Your task to perform on an android device: open device folders in google photos Image 0: 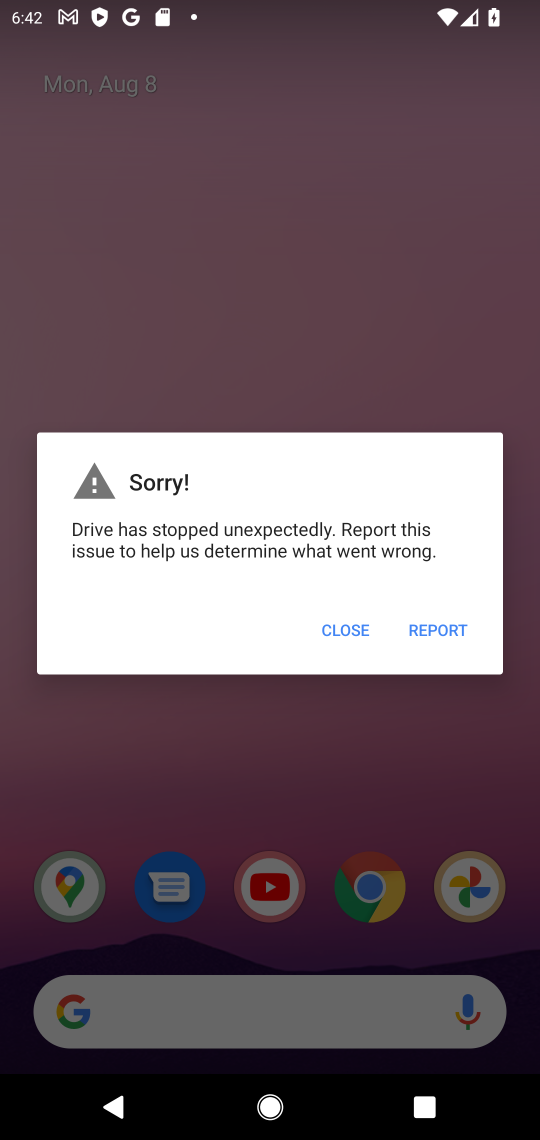
Step 0: press home button
Your task to perform on an android device: open device folders in google photos Image 1: 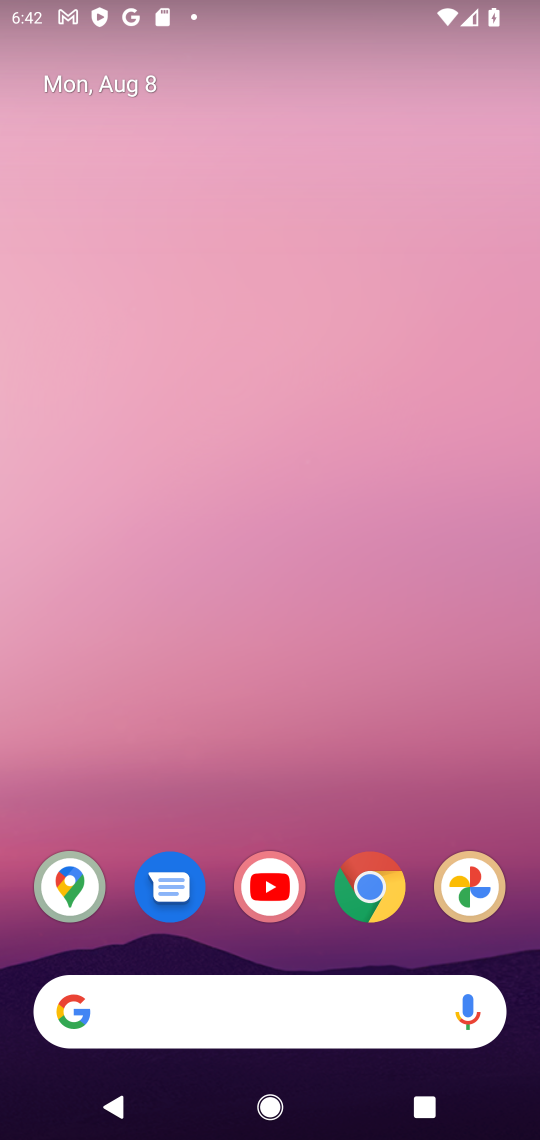
Step 1: drag from (420, 801) to (341, 269)
Your task to perform on an android device: open device folders in google photos Image 2: 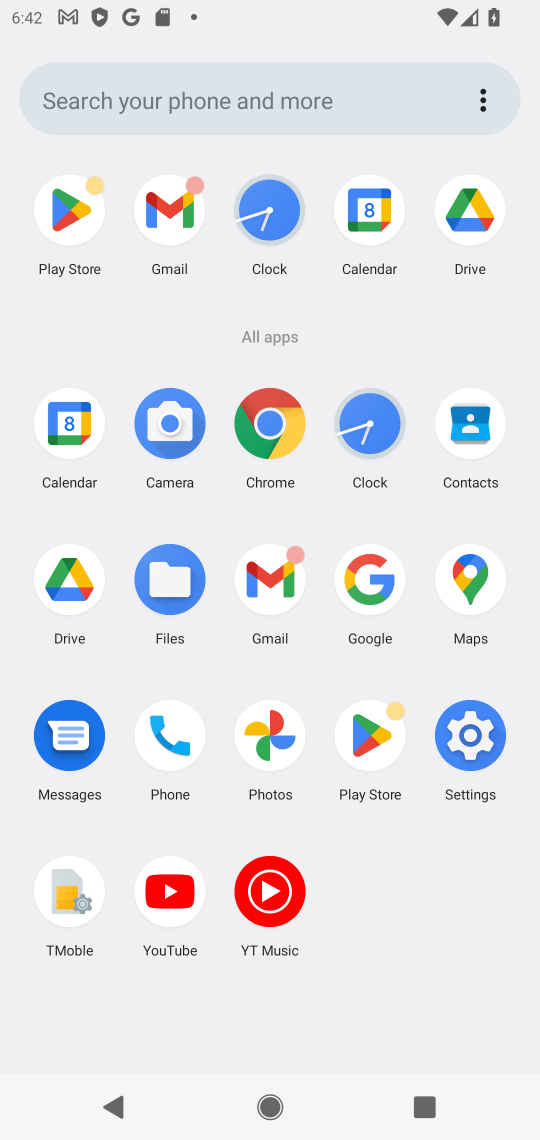
Step 2: click (278, 742)
Your task to perform on an android device: open device folders in google photos Image 3: 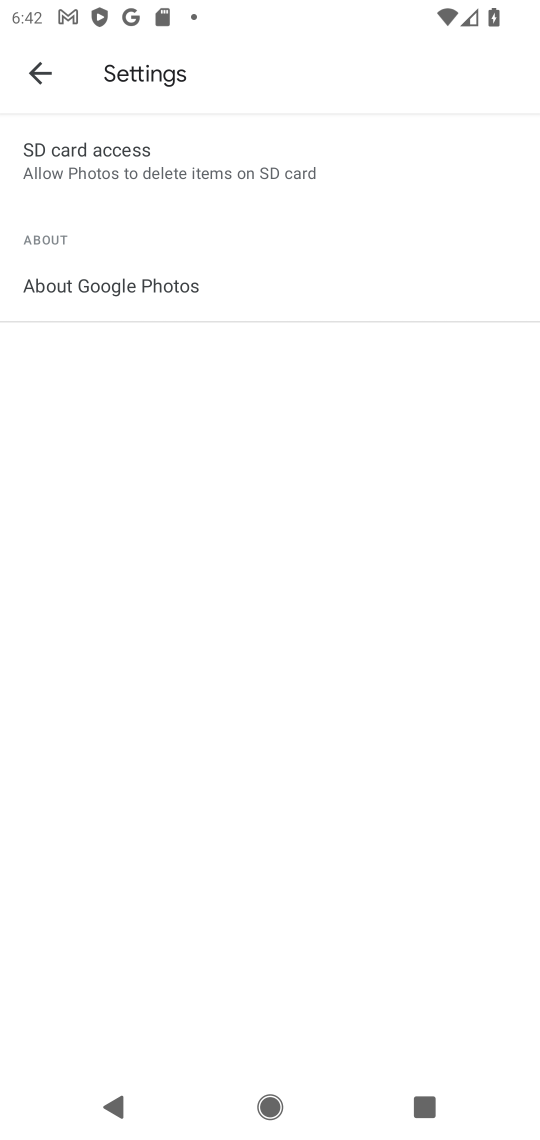
Step 3: click (41, 80)
Your task to perform on an android device: open device folders in google photos Image 4: 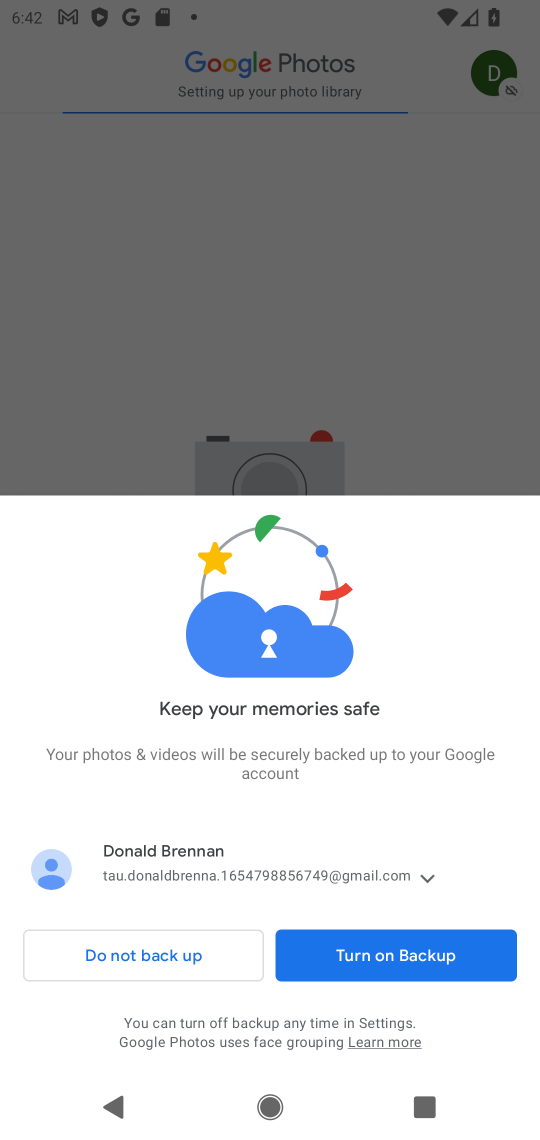
Step 4: click (369, 952)
Your task to perform on an android device: open device folders in google photos Image 5: 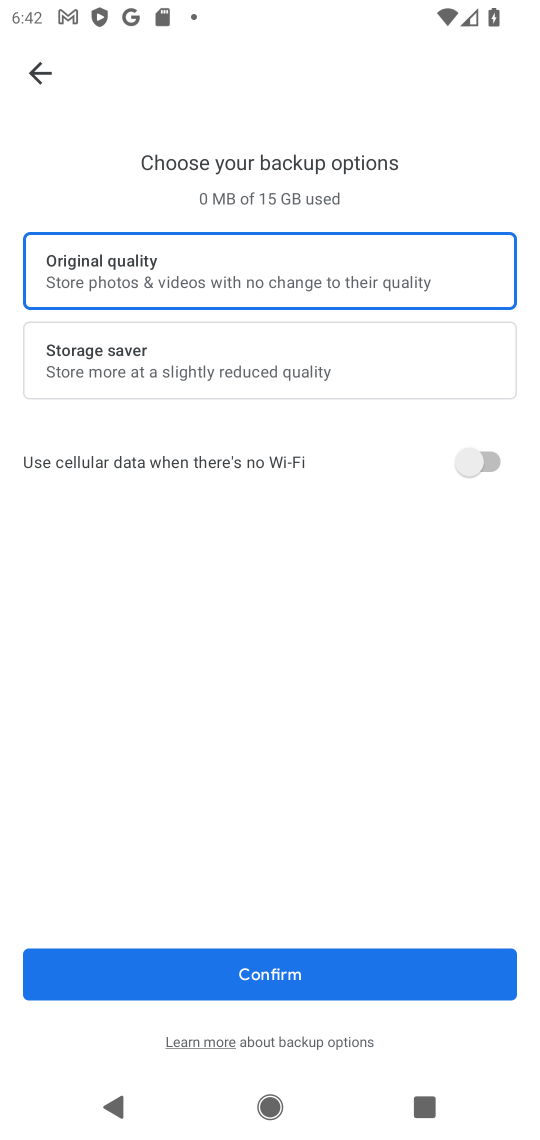
Step 5: click (327, 965)
Your task to perform on an android device: open device folders in google photos Image 6: 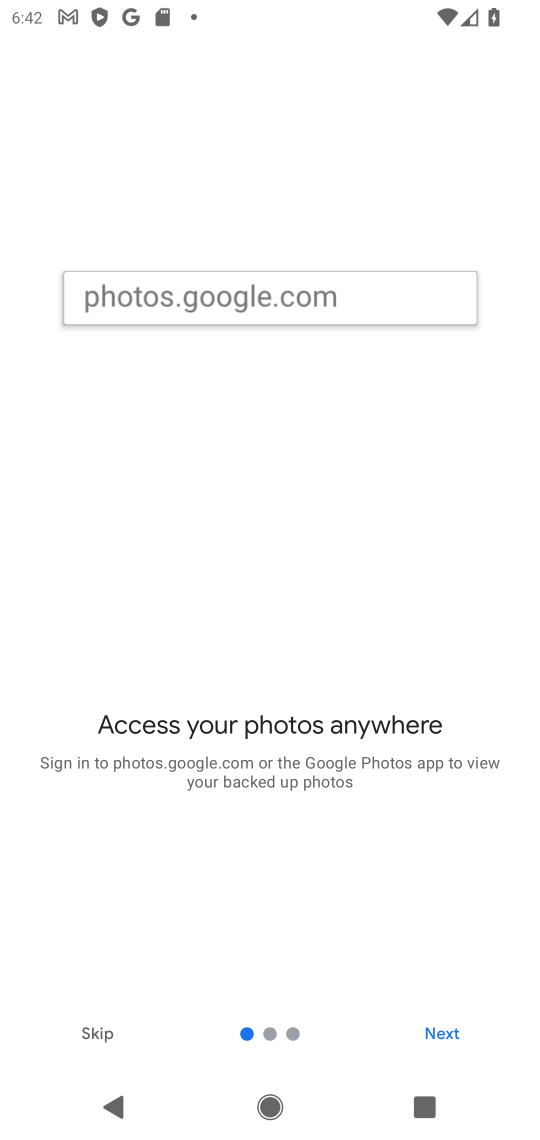
Step 6: click (95, 1035)
Your task to perform on an android device: open device folders in google photos Image 7: 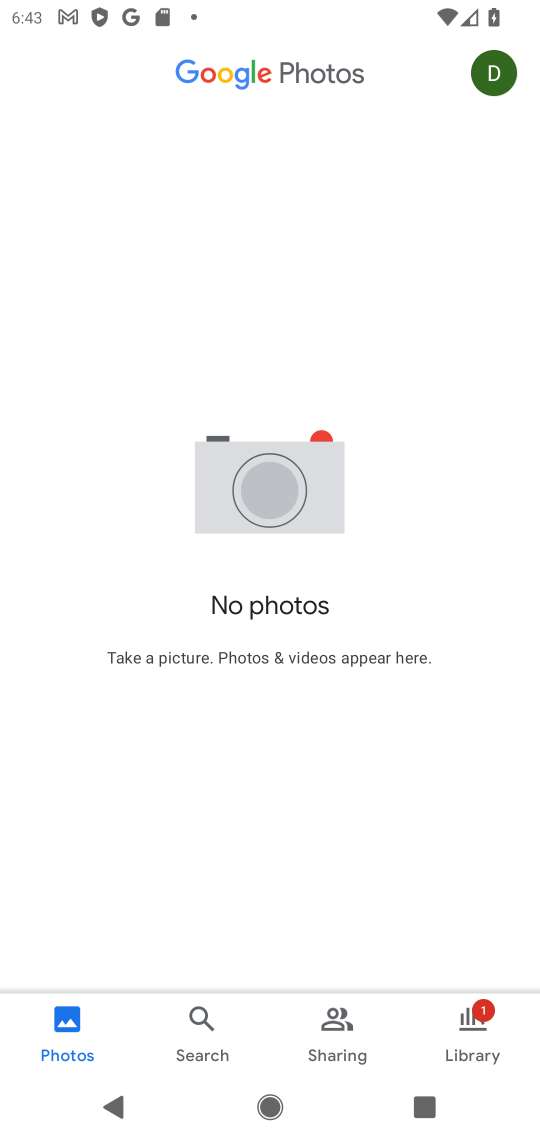
Step 7: click (487, 73)
Your task to perform on an android device: open device folders in google photos Image 8: 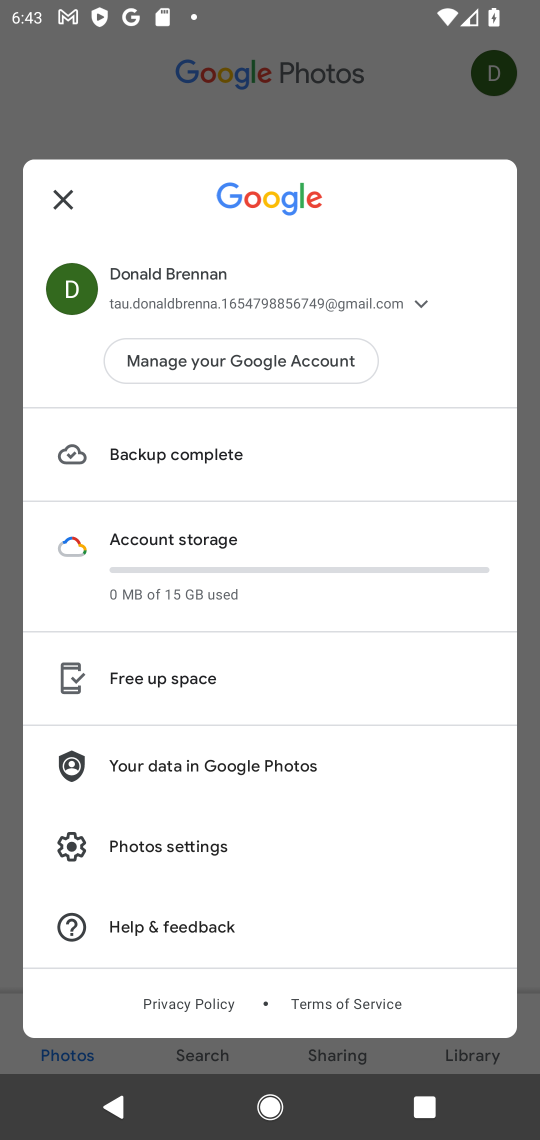
Step 8: task complete